Your task to perform on an android device: open wifi settings Image 0: 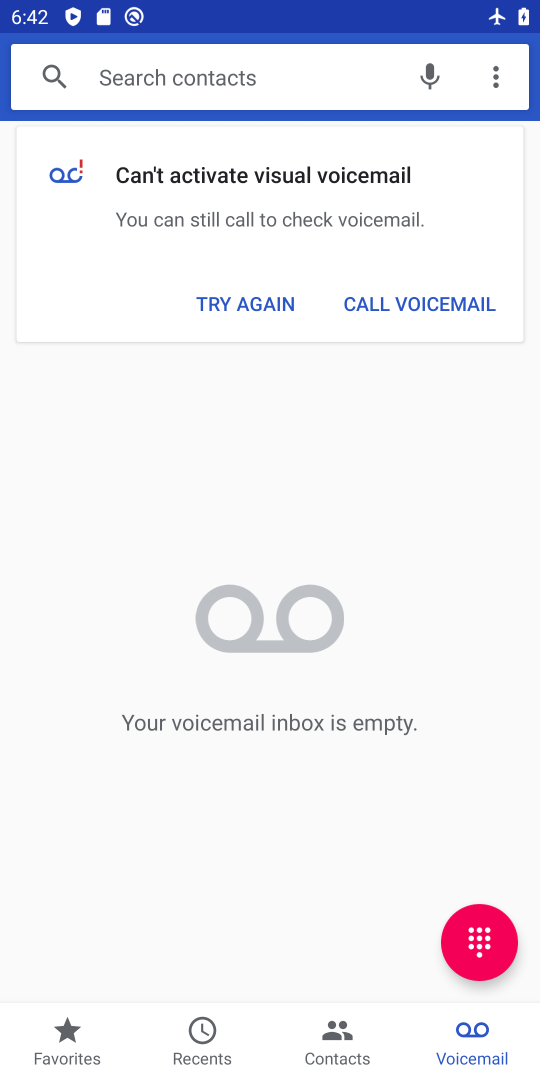
Step 0: press home button
Your task to perform on an android device: open wifi settings Image 1: 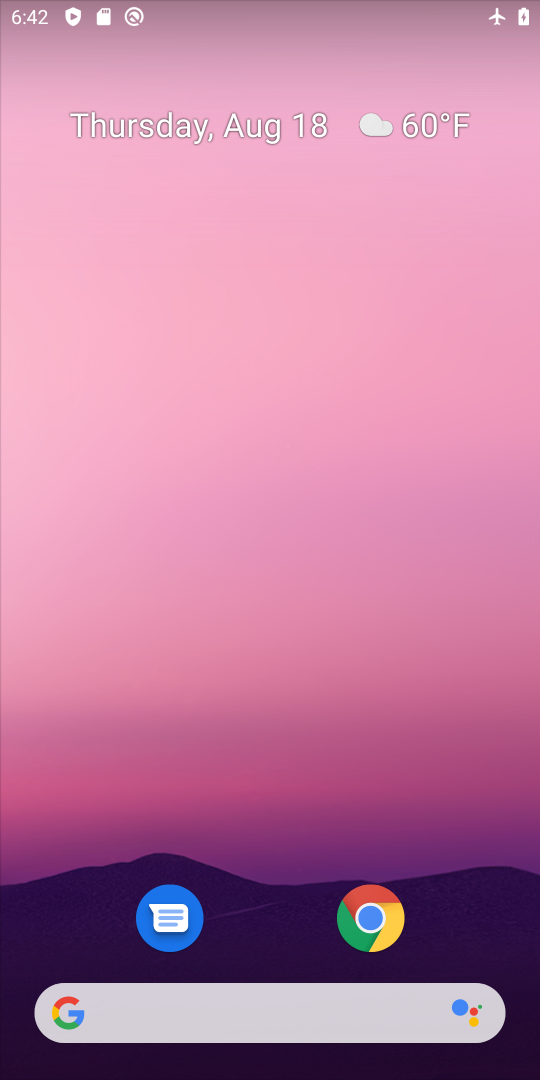
Step 1: drag from (250, 946) to (503, 202)
Your task to perform on an android device: open wifi settings Image 2: 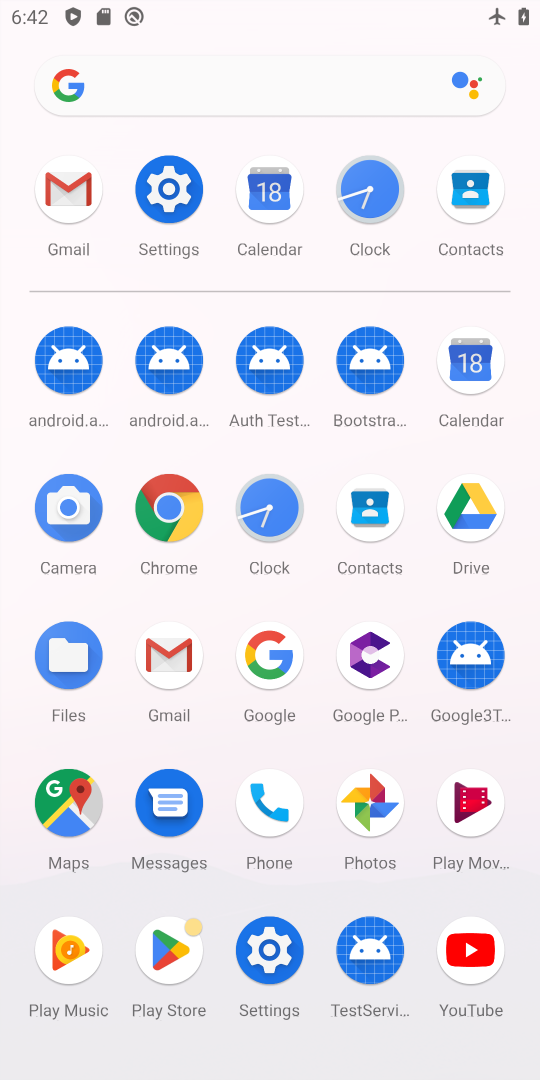
Step 2: click (180, 190)
Your task to perform on an android device: open wifi settings Image 3: 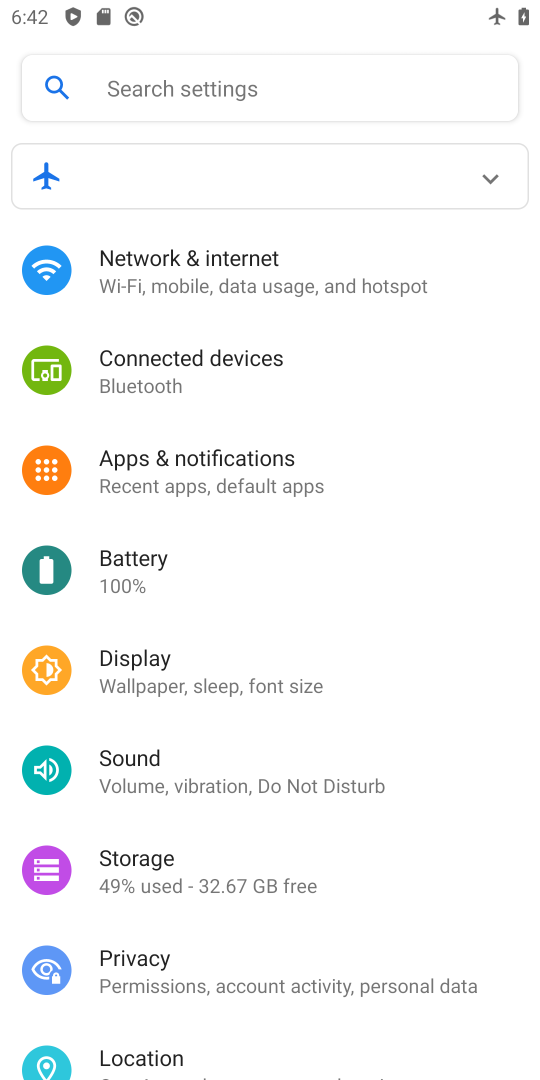
Step 3: click (220, 281)
Your task to perform on an android device: open wifi settings Image 4: 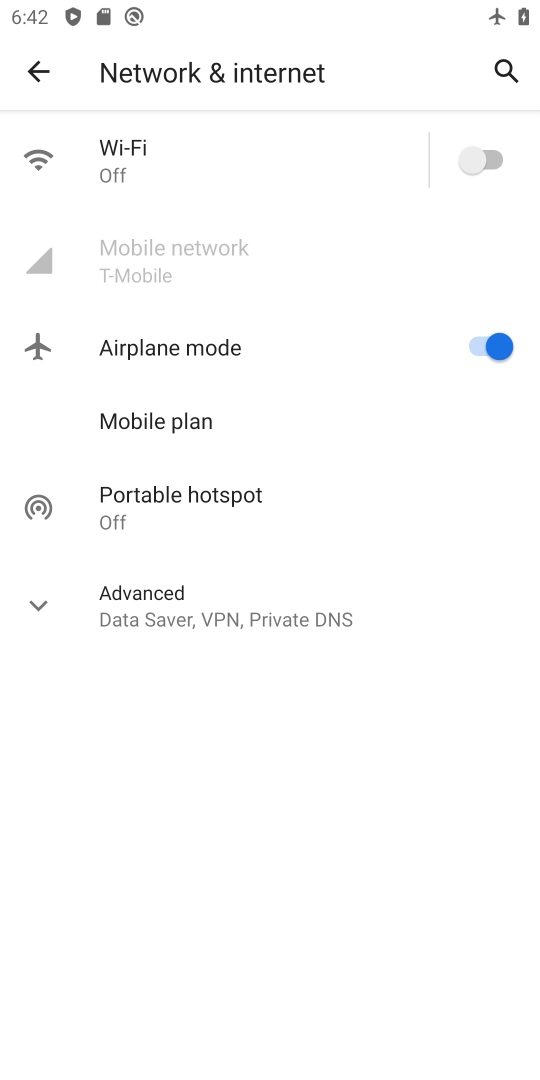
Step 4: click (483, 160)
Your task to perform on an android device: open wifi settings Image 5: 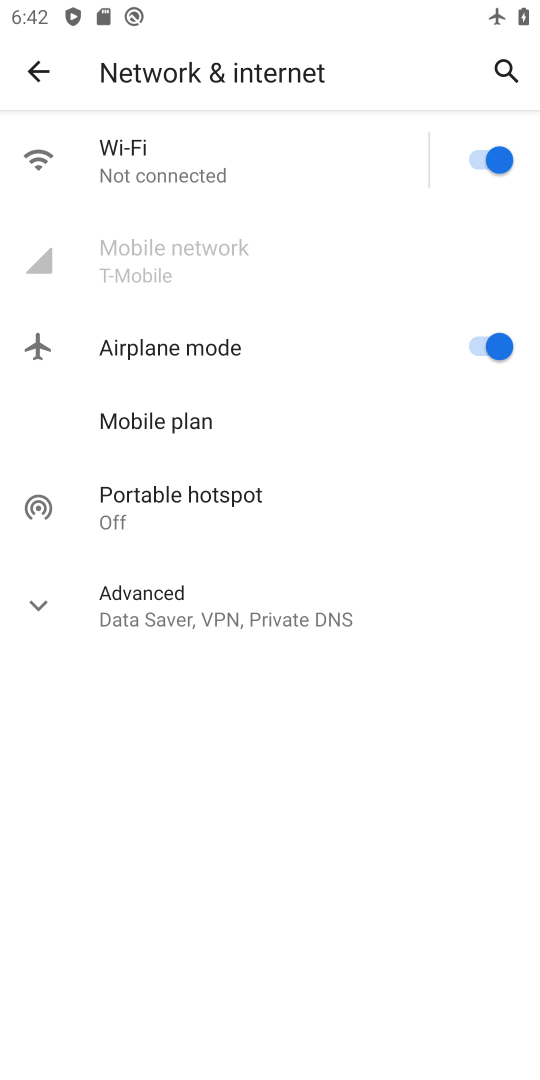
Step 5: click (112, 166)
Your task to perform on an android device: open wifi settings Image 6: 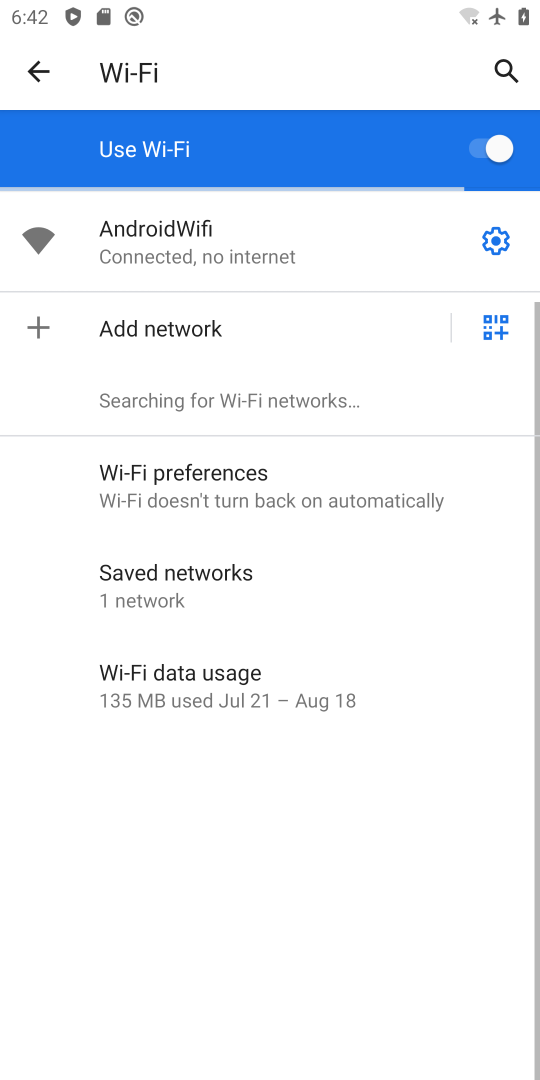
Step 6: task complete